Your task to perform on an android device: turn on showing notifications on the lock screen Image 0: 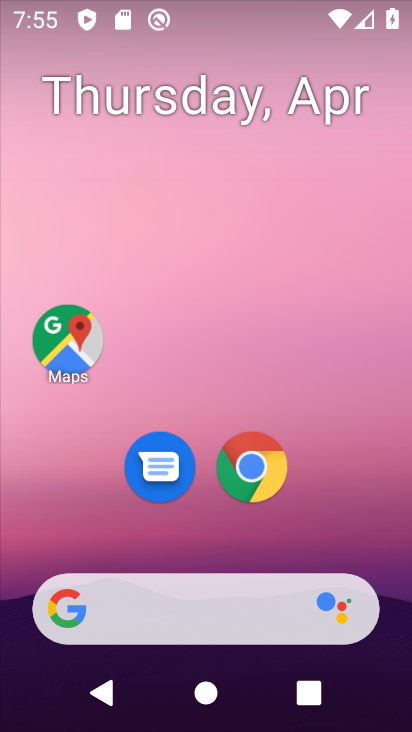
Step 0: drag from (237, 618) to (183, 206)
Your task to perform on an android device: turn on showing notifications on the lock screen Image 1: 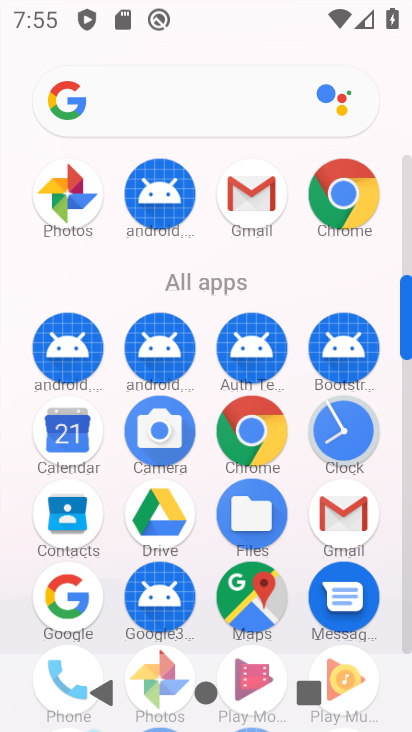
Step 1: drag from (209, 545) to (229, 46)
Your task to perform on an android device: turn on showing notifications on the lock screen Image 2: 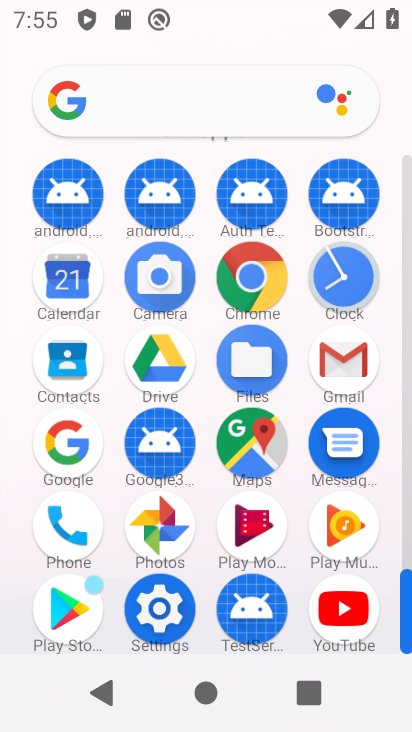
Step 2: click (161, 601)
Your task to perform on an android device: turn on showing notifications on the lock screen Image 3: 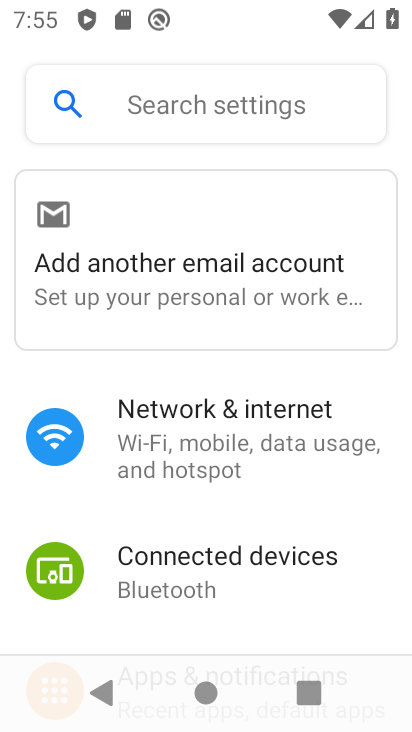
Step 3: drag from (161, 601) to (231, 322)
Your task to perform on an android device: turn on showing notifications on the lock screen Image 4: 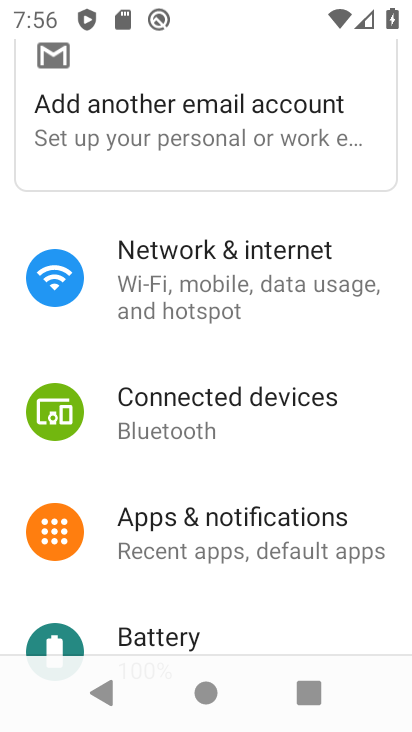
Step 4: click (158, 543)
Your task to perform on an android device: turn on showing notifications on the lock screen Image 5: 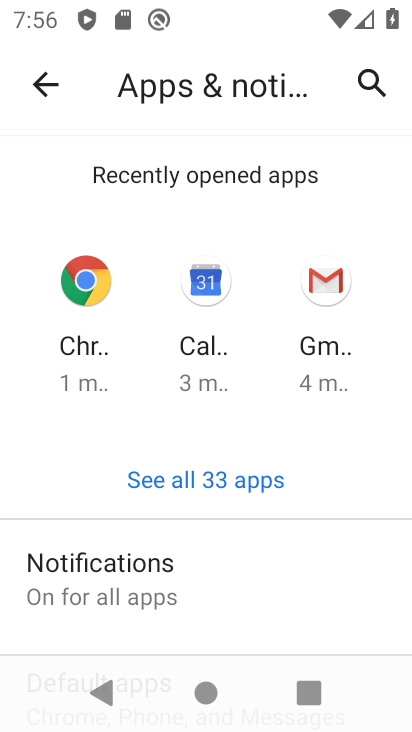
Step 5: click (165, 565)
Your task to perform on an android device: turn on showing notifications on the lock screen Image 6: 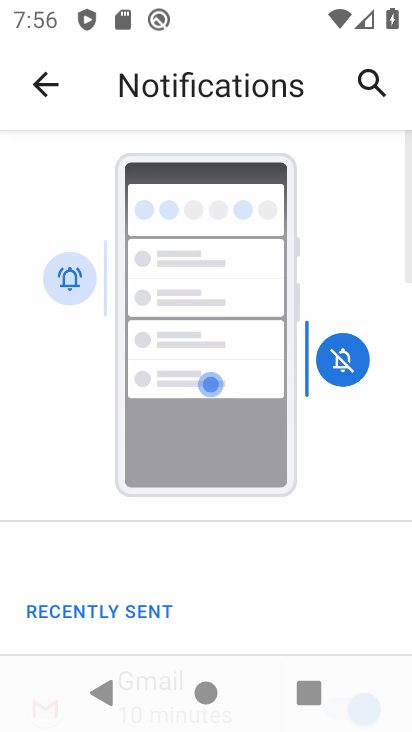
Step 6: drag from (231, 560) to (203, 44)
Your task to perform on an android device: turn on showing notifications on the lock screen Image 7: 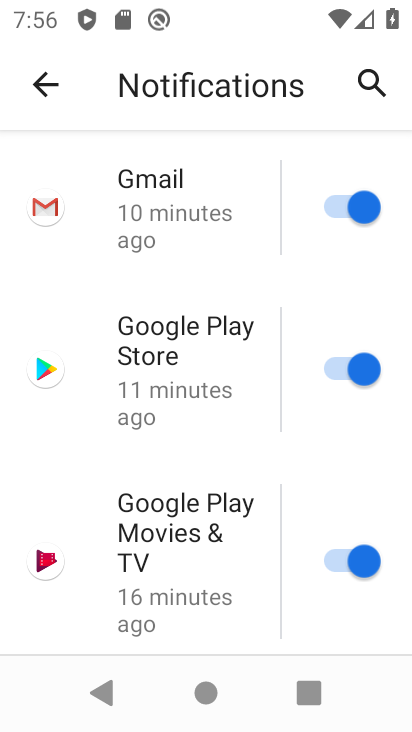
Step 7: drag from (183, 569) to (74, 24)
Your task to perform on an android device: turn on showing notifications on the lock screen Image 8: 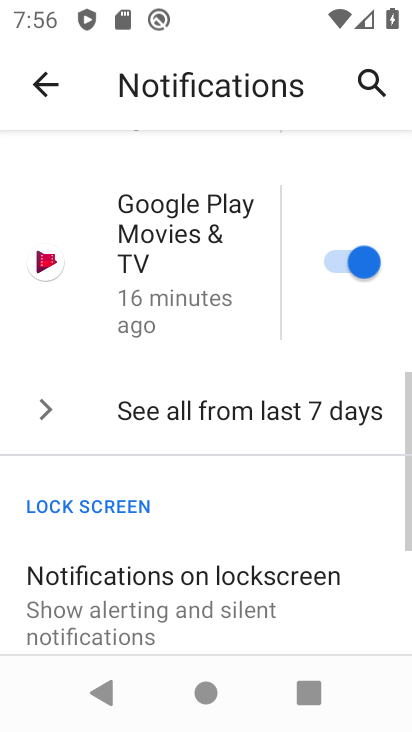
Step 8: click (189, 579)
Your task to perform on an android device: turn on showing notifications on the lock screen Image 9: 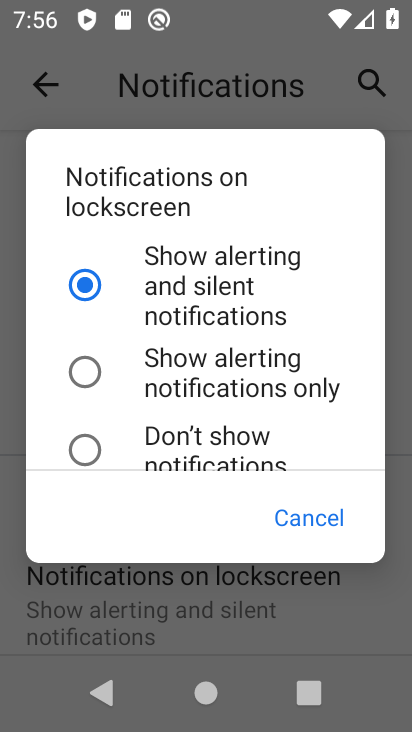
Step 9: task complete